Your task to perform on an android device: check storage Image 0: 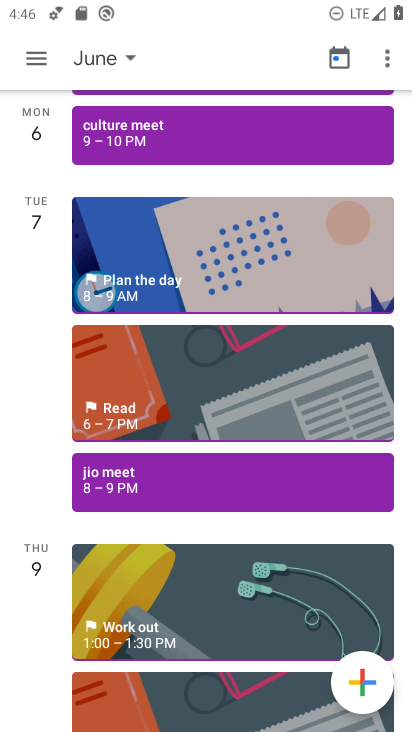
Step 0: press home button
Your task to perform on an android device: check storage Image 1: 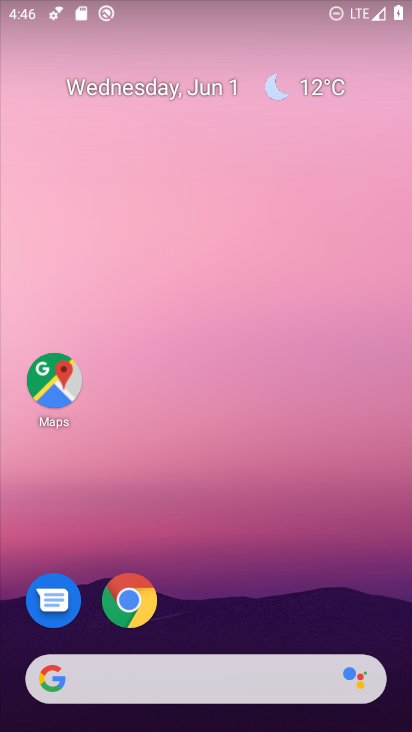
Step 1: drag from (369, 612) to (284, 53)
Your task to perform on an android device: check storage Image 2: 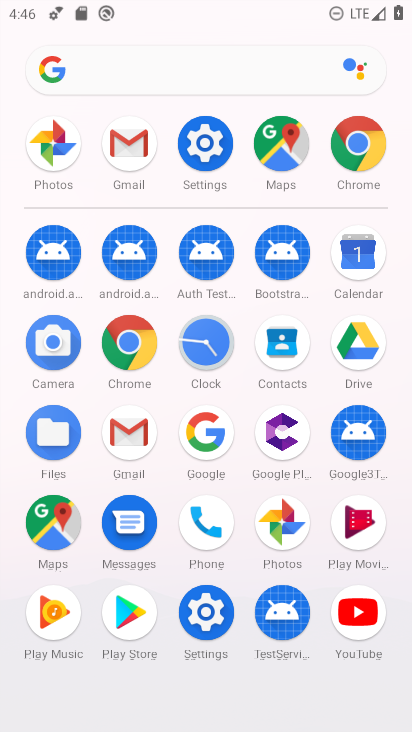
Step 2: click (209, 608)
Your task to perform on an android device: check storage Image 3: 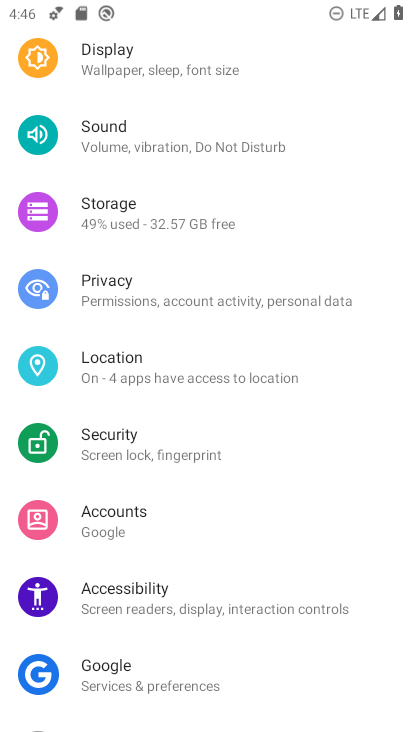
Step 3: click (126, 207)
Your task to perform on an android device: check storage Image 4: 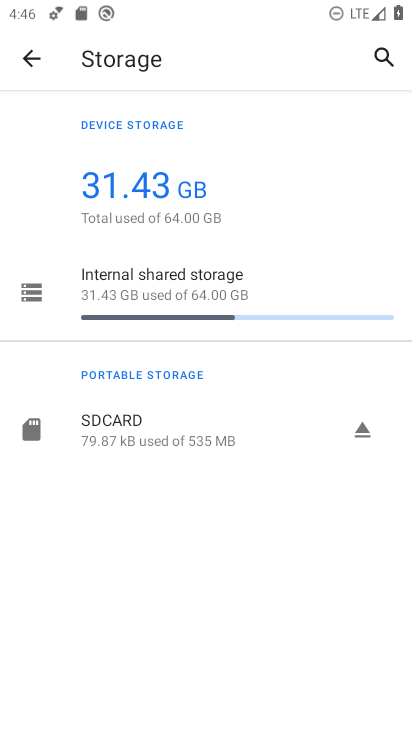
Step 4: task complete